Your task to perform on an android device: Go to CNN.com Image 0: 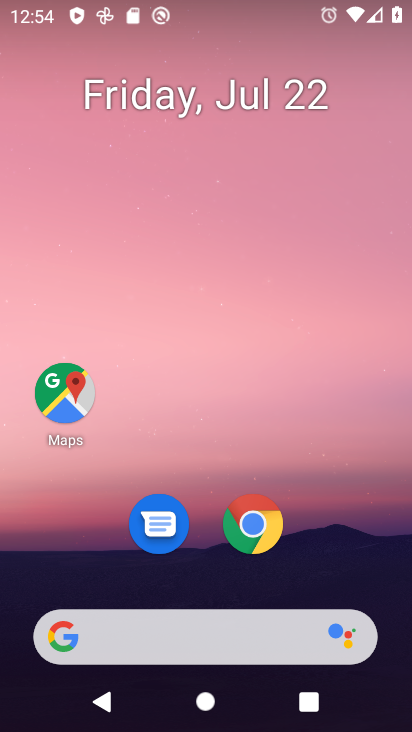
Step 0: click (258, 532)
Your task to perform on an android device: Go to CNN.com Image 1: 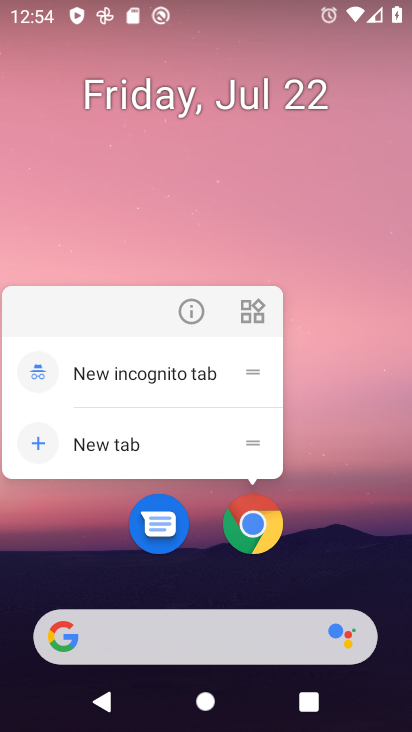
Step 1: click (258, 532)
Your task to perform on an android device: Go to CNN.com Image 2: 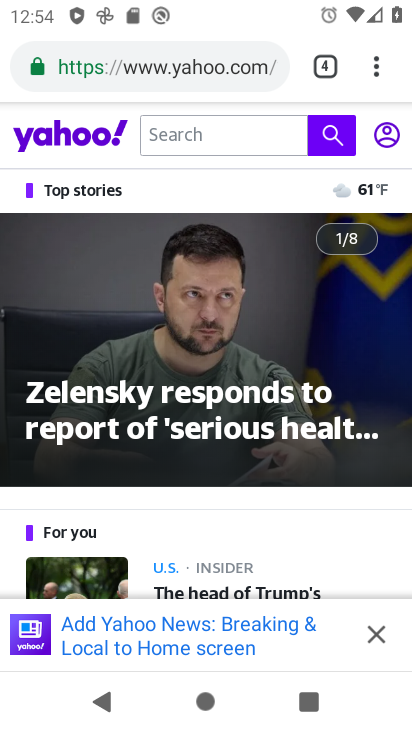
Step 2: drag from (372, 73) to (190, 131)
Your task to perform on an android device: Go to CNN.com Image 3: 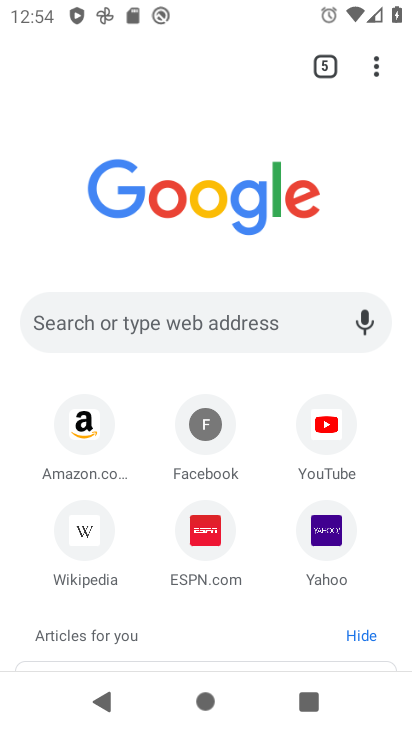
Step 3: click (132, 327)
Your task to perform on an android device: Go to CNN.com Image 4: 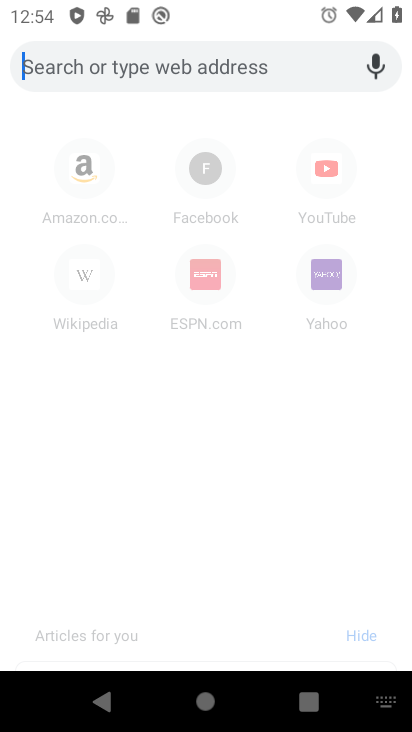
Step 4: type "cnn.com"
Your task to perform on an android device: Go to CNN.com Image 5: 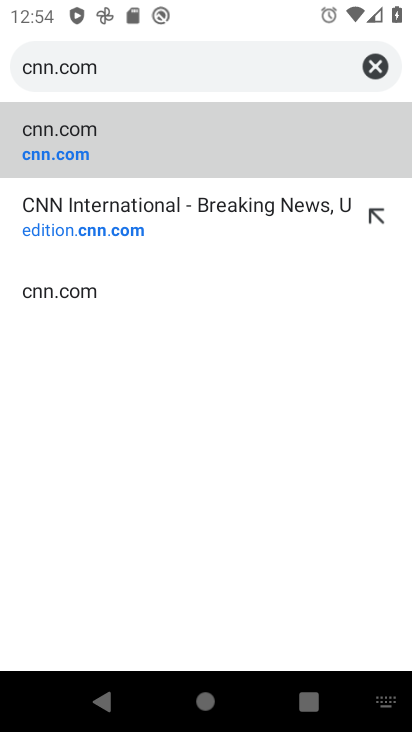
Step 5: click (75, 156)
Your task to perform on an android device: Go to CNN.com Image 6: 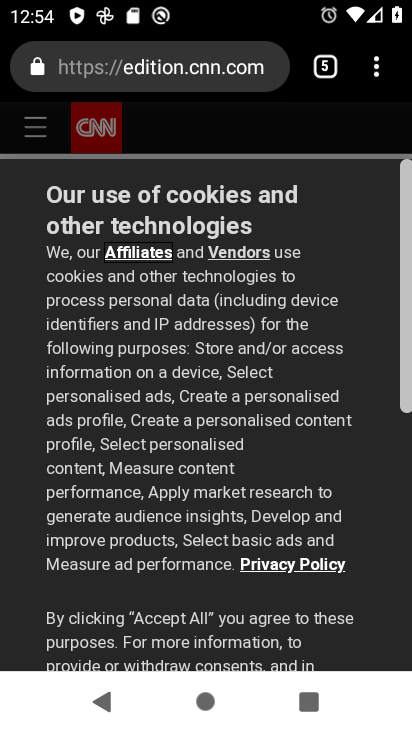
Step 6: drag from (124, 616) to (292, 188)
Your task to perform on an android device: Go to CNN.com Image 7: 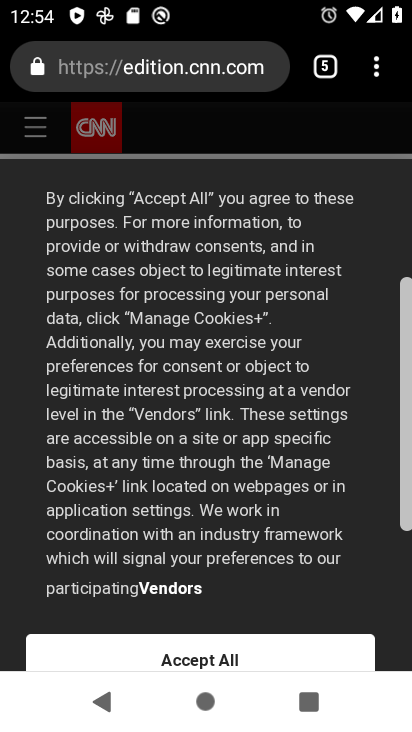
Step 7: drag from (102, 584) to (224, 361)
Your task to perform on an android device: Go to CNN.com Image 8: 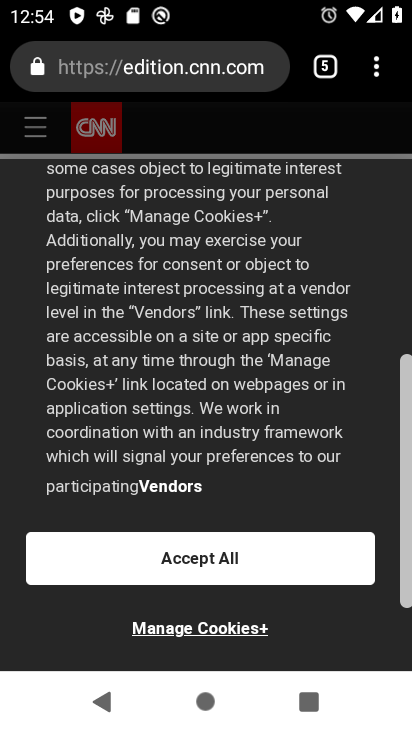
Step 8: click (202, 561)
Your task to perform on an android device: Go to CNN.com Image 9: 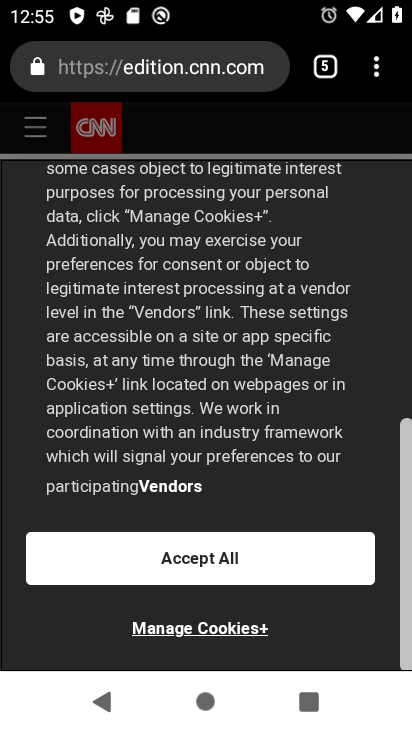
Step 9: click (209, 555)
Your task to perform on an android device: Go to CNN.com Image 10: 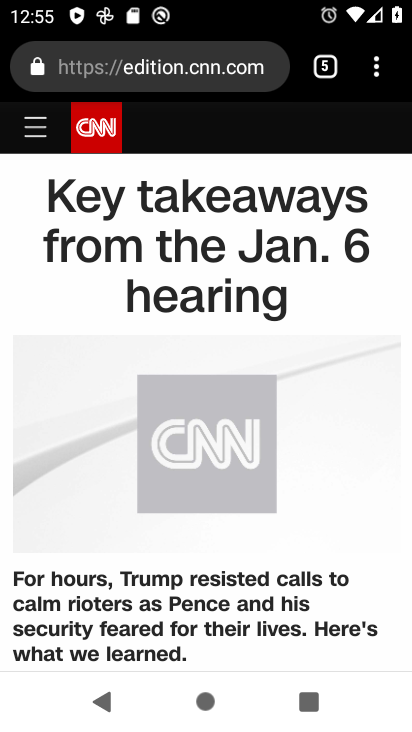
Step 10: task complete